Your task to perform on an android device: choose inbox layout in the gmail app Image 0: 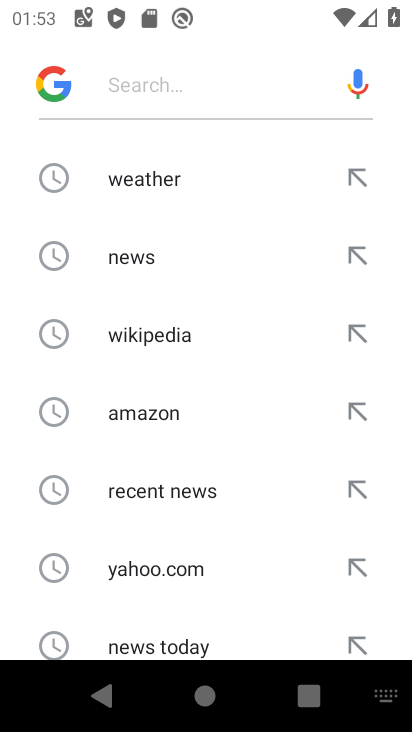
Step 0: press home button
Your task to perform on an android device: choose inbox layout in the gmail app Image 1: 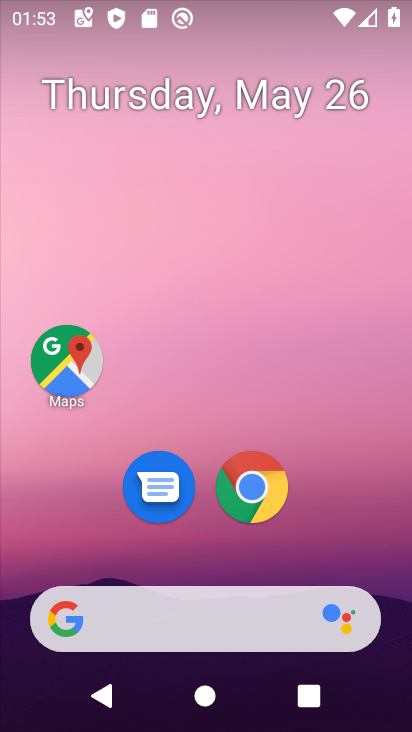
Step 1: drag from (235, 613) to (140, 20)
Your task to perform on an android device: choose inbox layout in the gmail app Image 2: 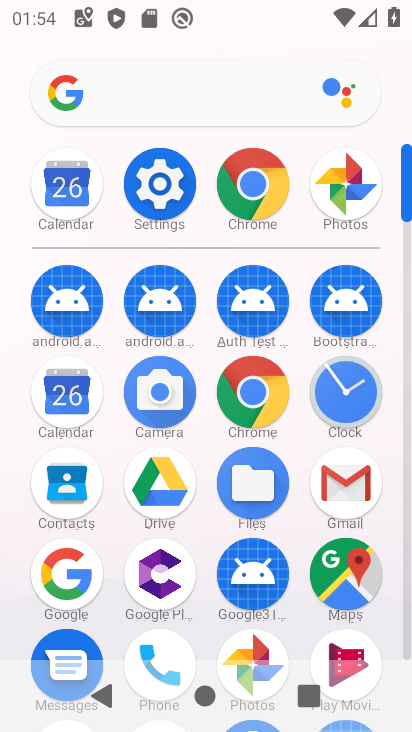
Step 2: click (360, 496)
Your task to perform on an android device: choose inbox layout in the gmail app Image 3: 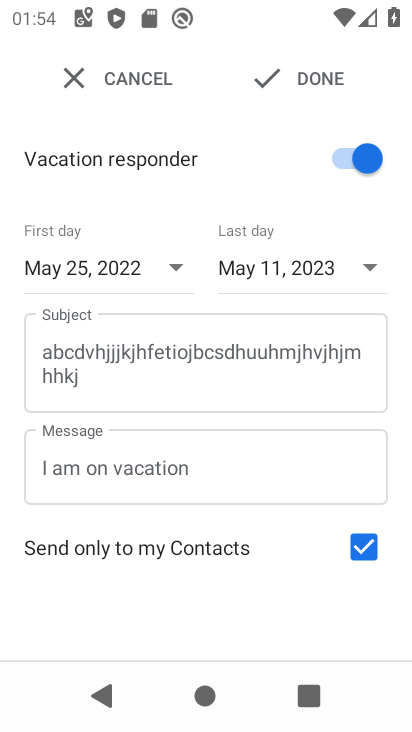
Step 3: task complete